Your task to perform on an android device: How big is a giraffe? Image 0: 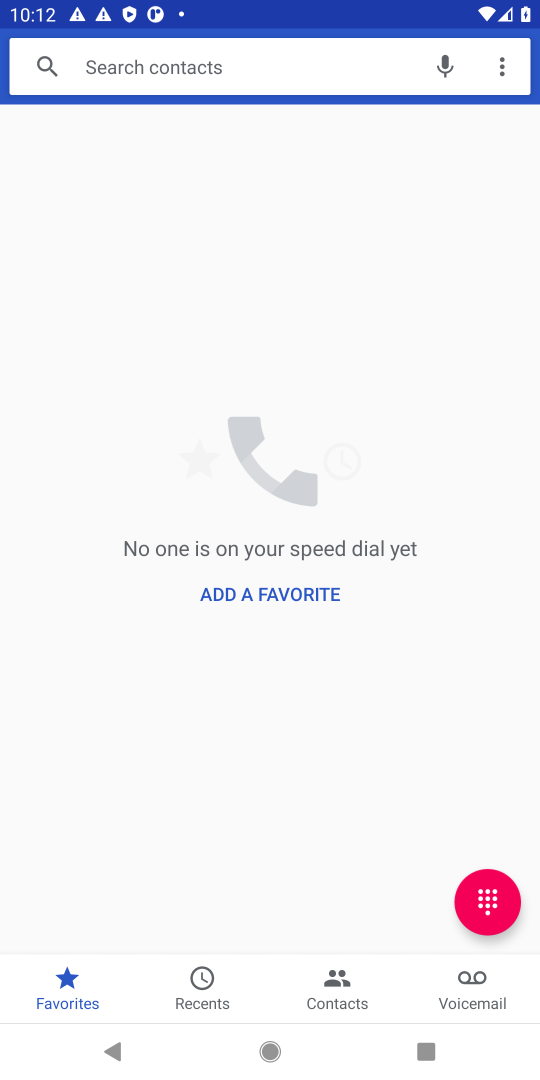
Step 0: press back button
Your task to perform on an android device: How big is a giraffe? Image 1: 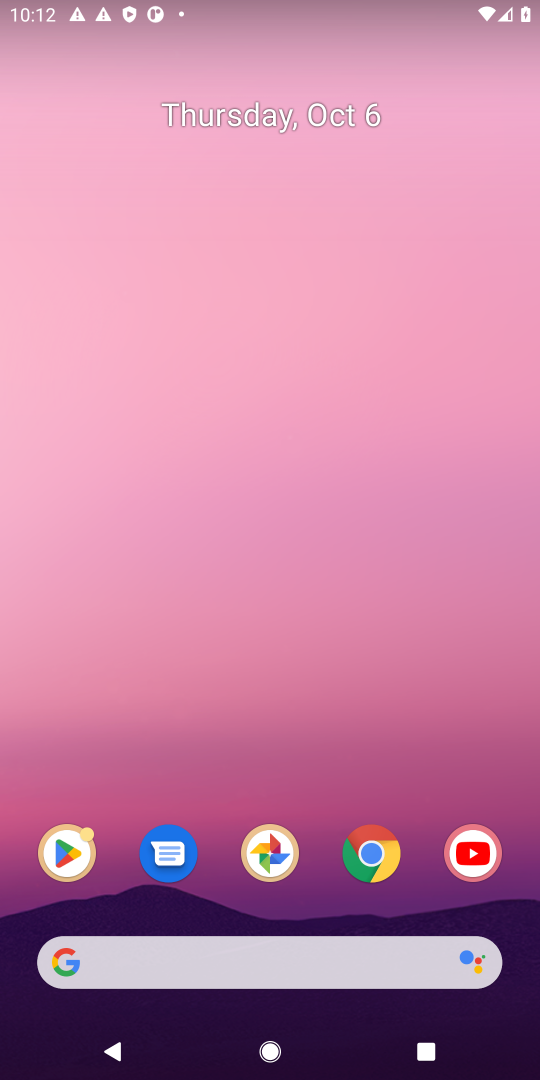
Step 1: click (253, 969)
Your task to perform on an android device: How big is a giraffe? Image 2: 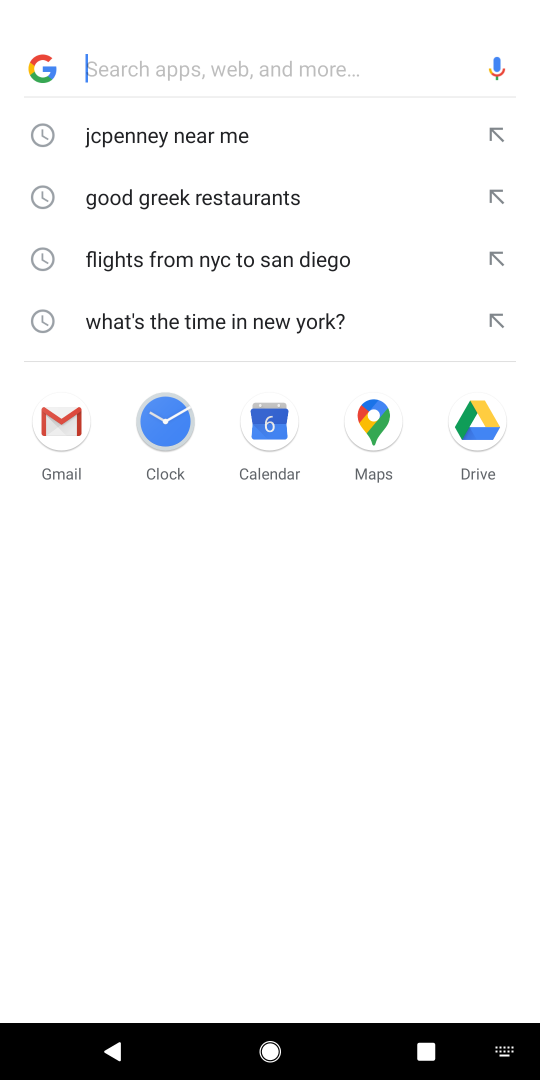
Step 2: click (197, 66)
Your task to perform on an android device: How big is a giraffe? Image 3: 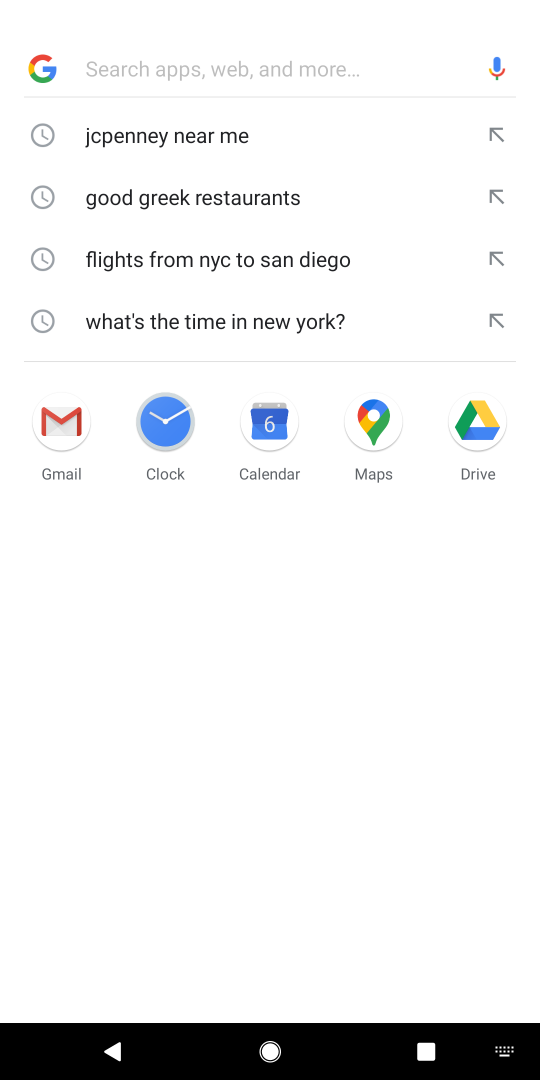
Step 3: type "how big is a giraffe"
Your task to perform on an android device: How big is a giraffe? Image 4: 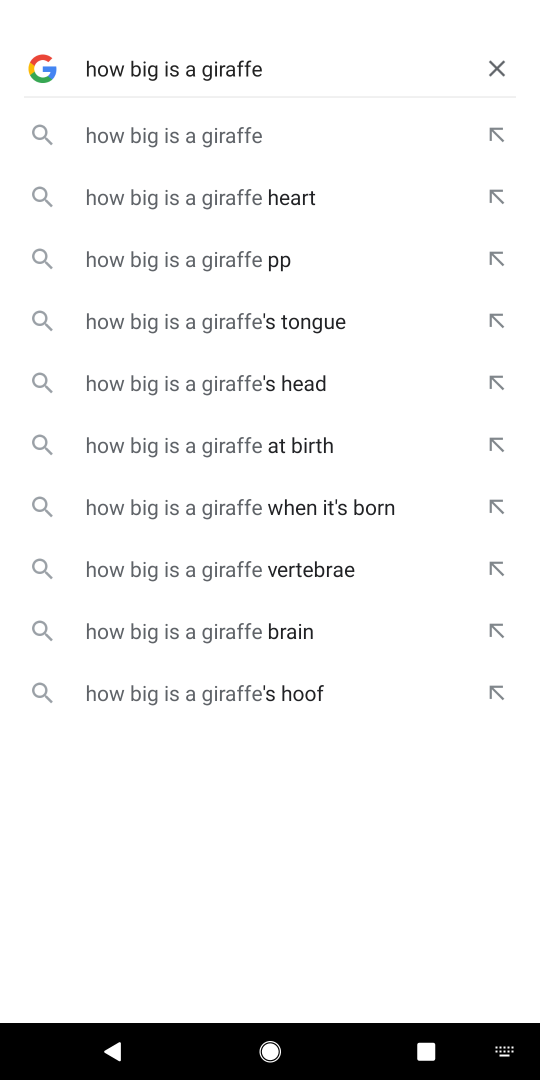
Step 4: type ""
Your task to perform on an android device: How big is a giraffe? Image 5: 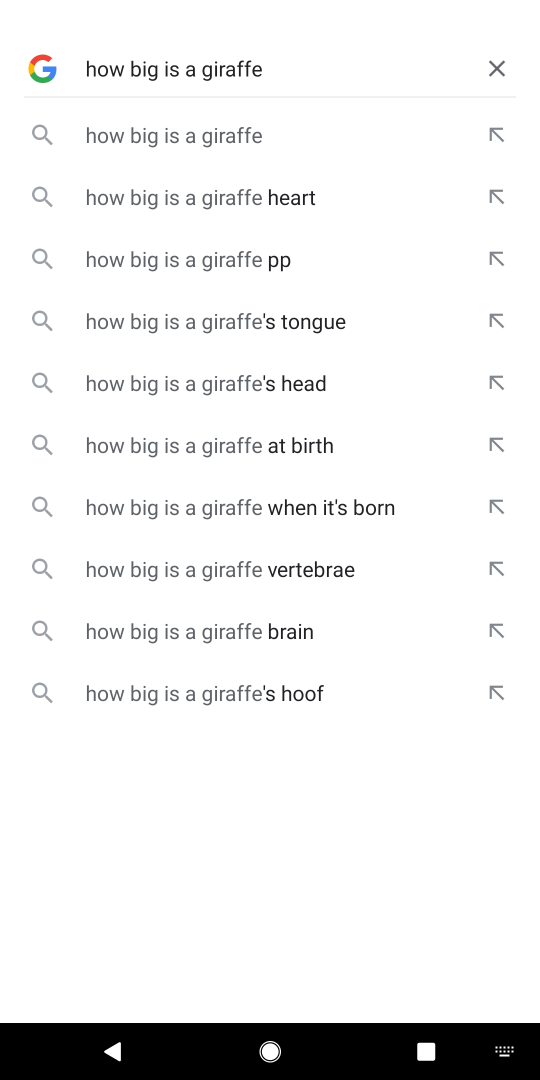
Step 5: click (240, 143)
Your task to perform on an android device: How big is a giraffe? Image 6: 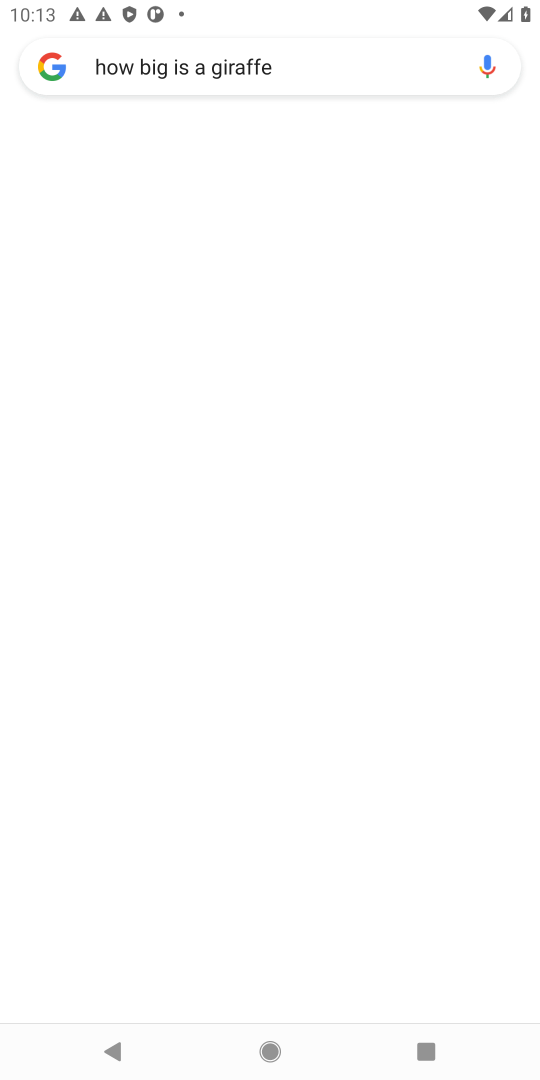
Step 6: click (243, 146)
Your task to perform on an android device: How big is a giraffe? Image 7: 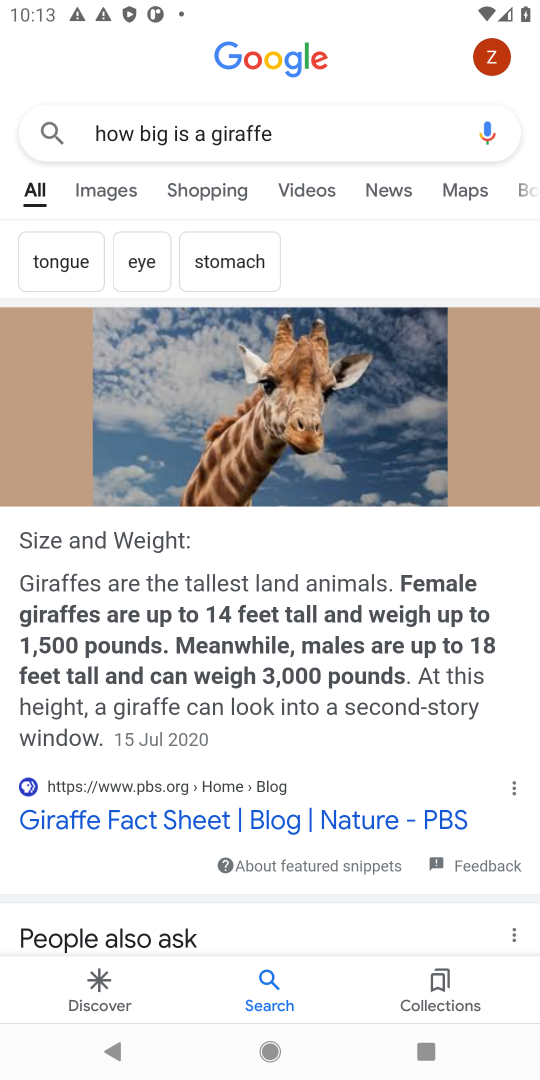
Step 7: drag from (178, 621) to (222, 260)
Your task to perform on an android device: How big is a giraffe? Image 8: 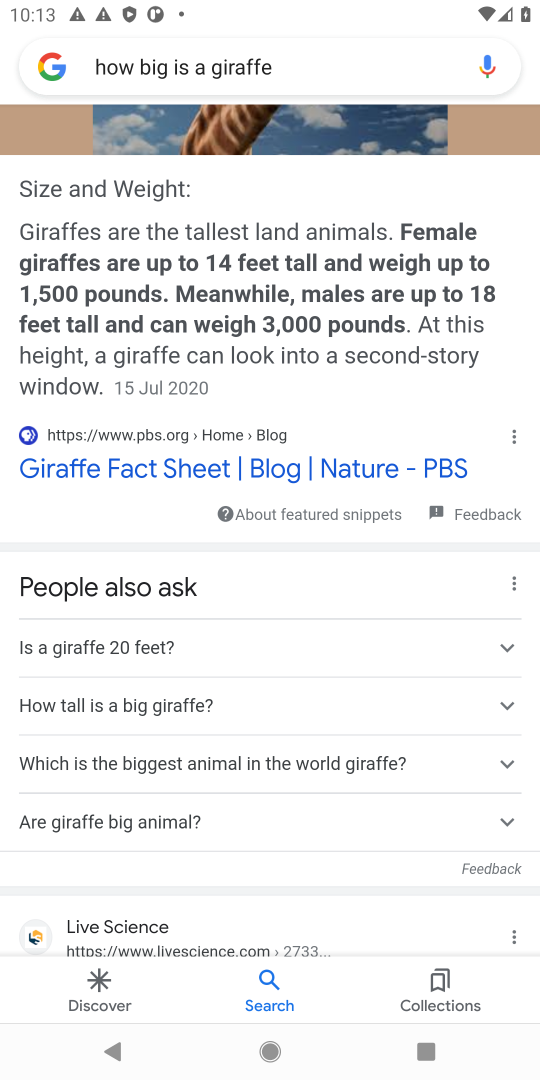
Step 8: drag from (264, 608) to (249, 384)
Your task to perform on an android device: How big is a giraffe? Image 9: 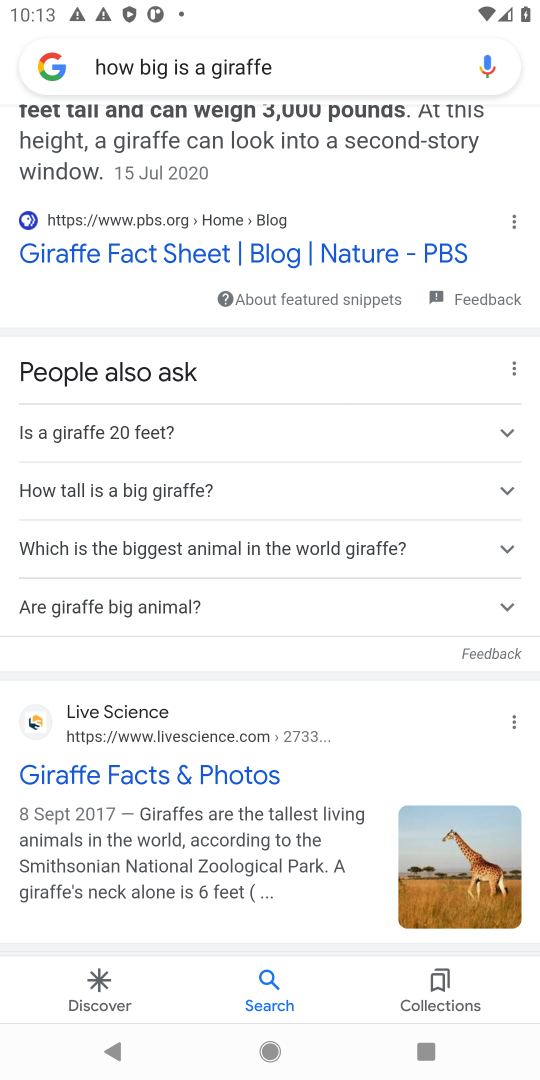
Step 9: drag from (201, 695) to (236, 820)
Your task to perform on an android device: How big is a giraffe? Image 10: 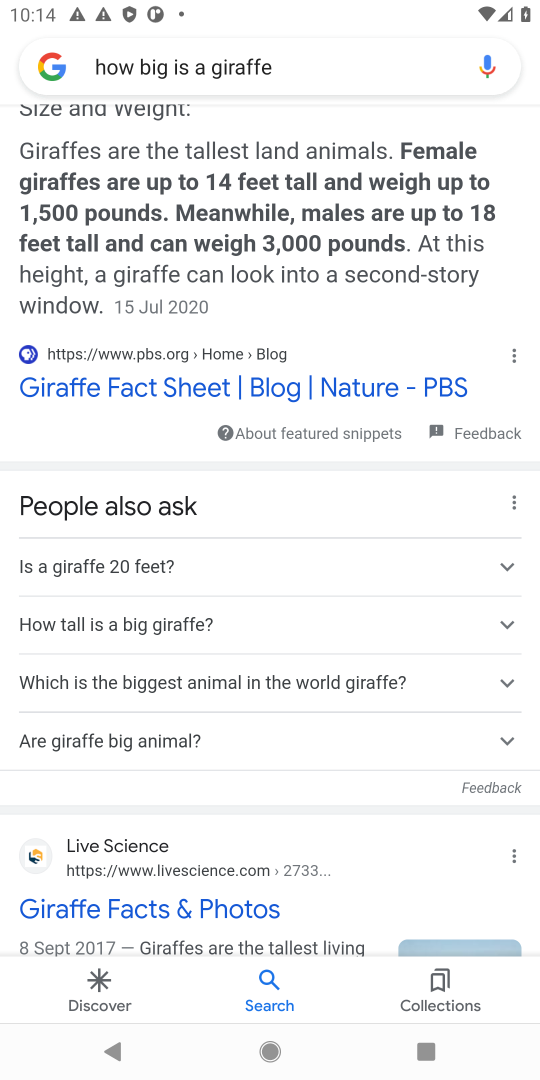
Step 10: click (131, 379)
Your task to perform on an android device: How big is a giraffe? Image 11: 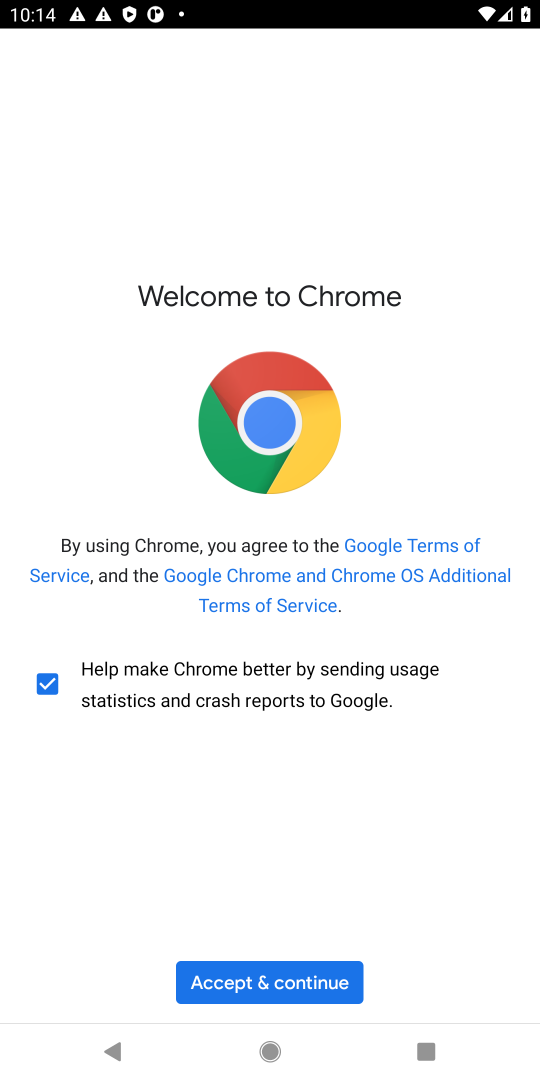
Step 11: click (219, 690)
Your task to perform on an android device: How big is a giraffe? Image 12: 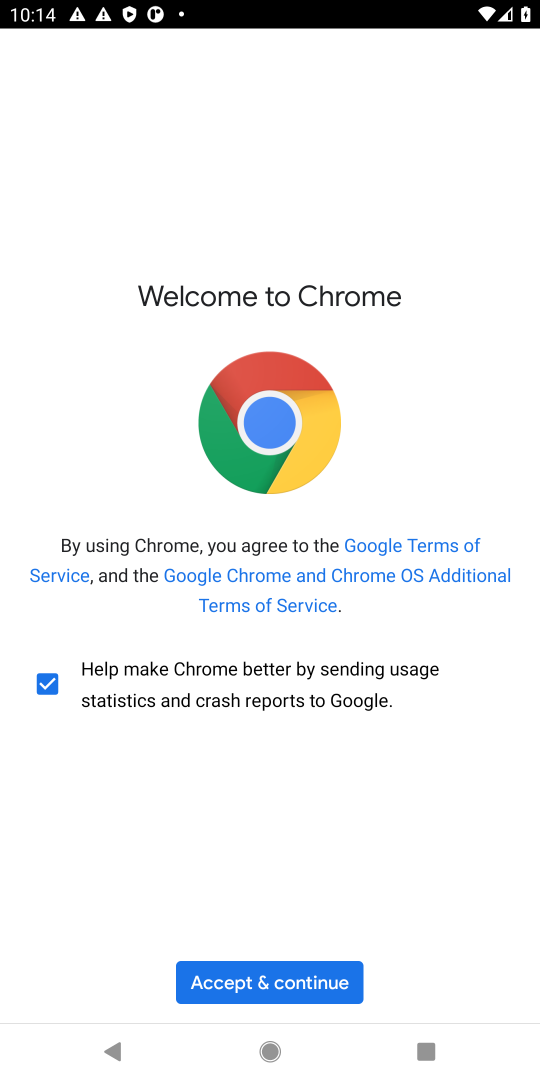
Step 12: click (254, 968)
Your task to perform on an android device: How big is a giraffe? Image 13: 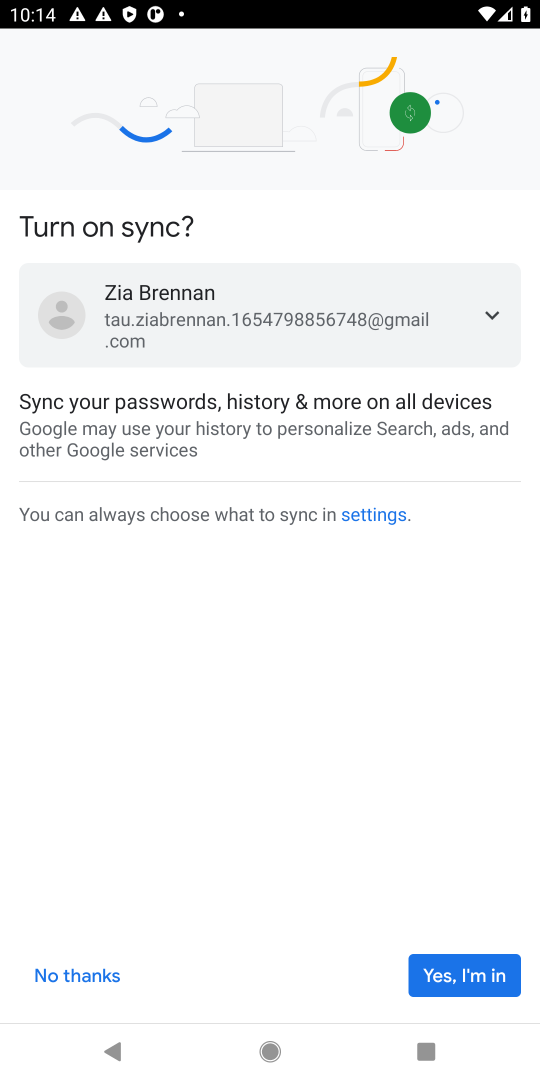
Step 13: click (461, 974)
Your task to perform on an android device: How big is a giraffe? Image 14: 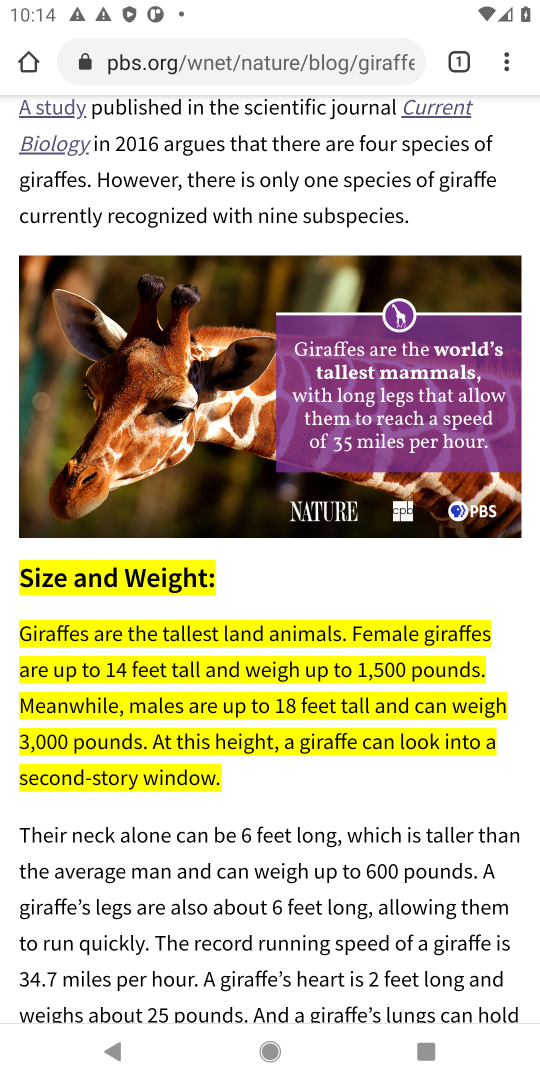
Step 14: task complete